Your task to perform on an android device: Open the stopwatch Image 0: 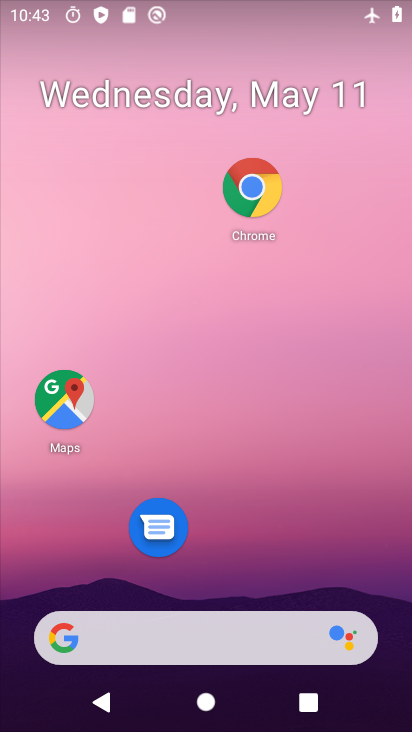
Step 0: drag from (255, 521) to (227, 84)
Your task to perform on an android device: Open the stopwatch Image 1: 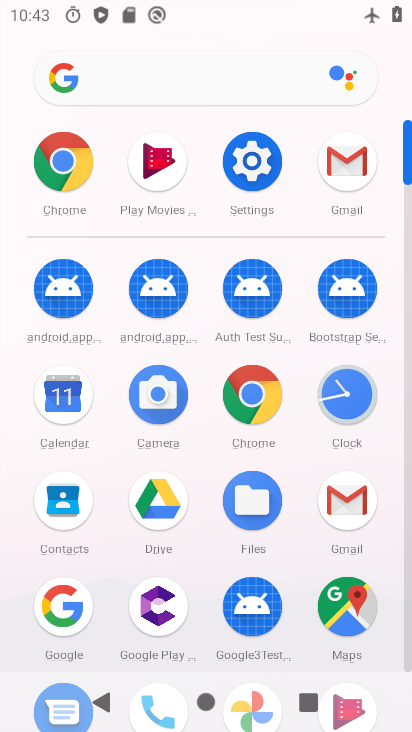
Step 1: click (348, 382)
Your task to perform on an android device: Open the stopwatch Image 2: 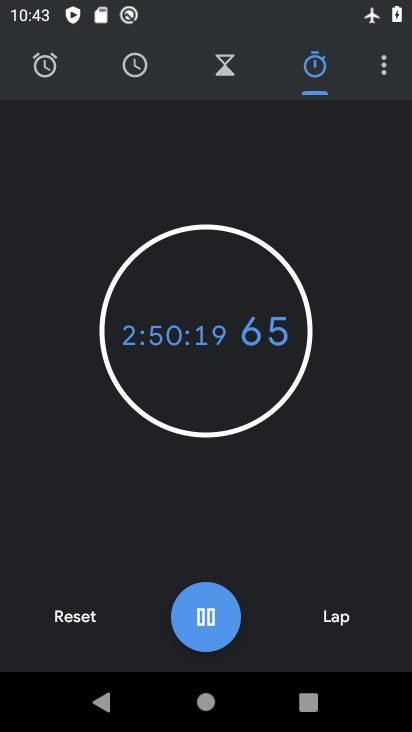
Step 2: click (388, 66)
Your task to perform on an android device: Open the stopwatch Image 3: 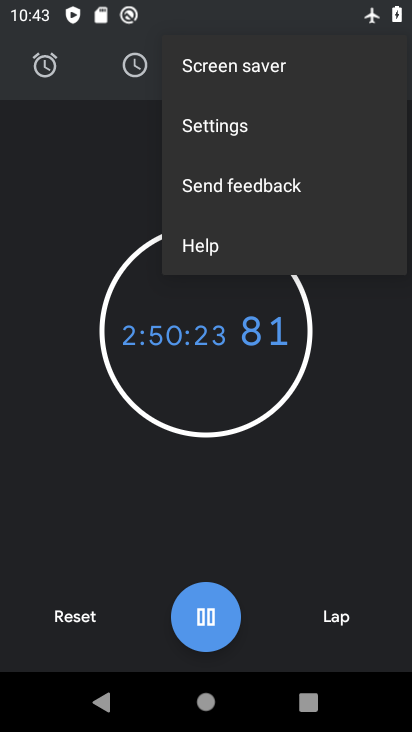
Step 3: task complete